Your task to perform on an android device: Open battery settings Image 0: 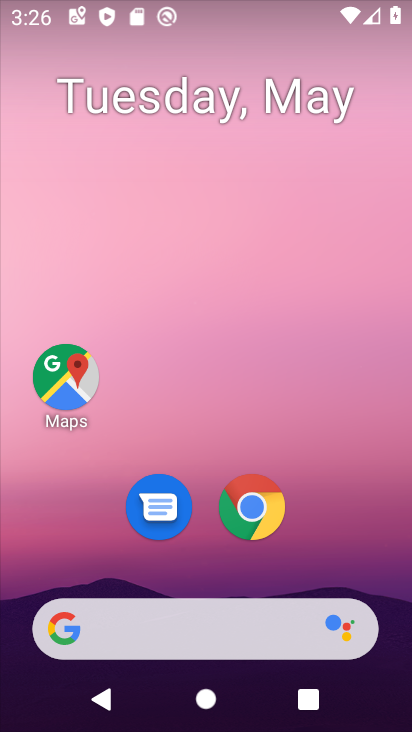
Step 0: drag from (200, 567) to (223, 0)
Your task to perform on an android device: Open battery settings Image 1: 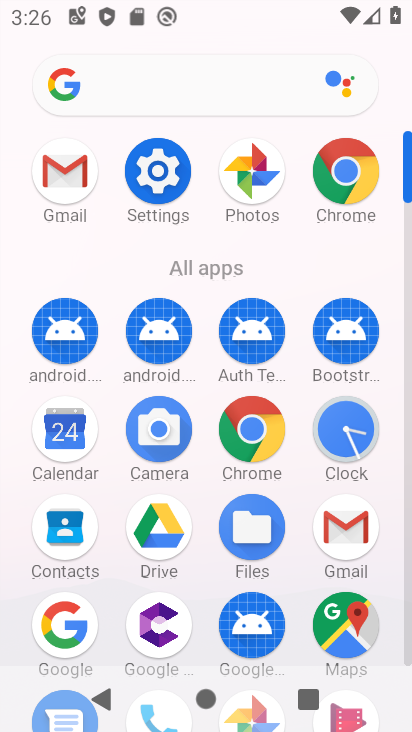
Step 1: click (149, 162)
Your task to perform on an android device: Open battery settings Image 2: 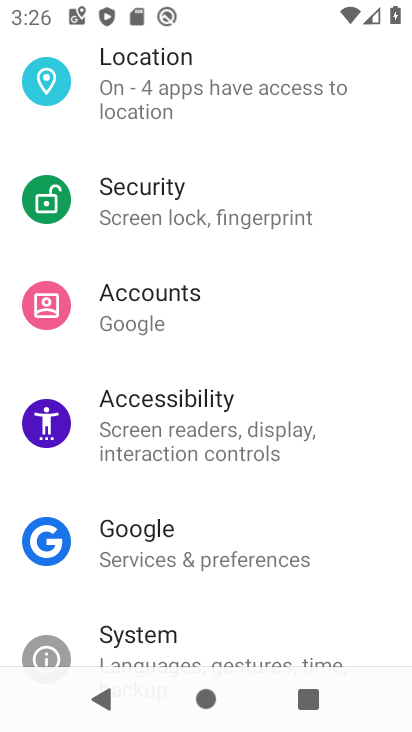
Step 2: drag from (247, 178) to (292, 640)
Your task to perform on an android device: Open battery settings Image 3: 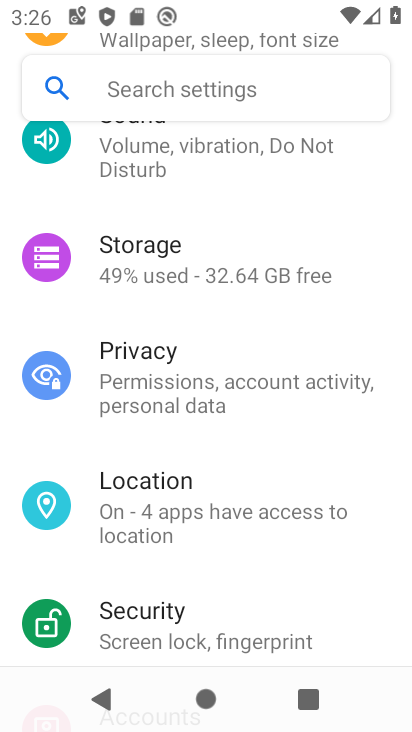
Step 3: drag from (167, 292) to (199, 713)
Your task to perform on an android device: Open battery settings Image 4: 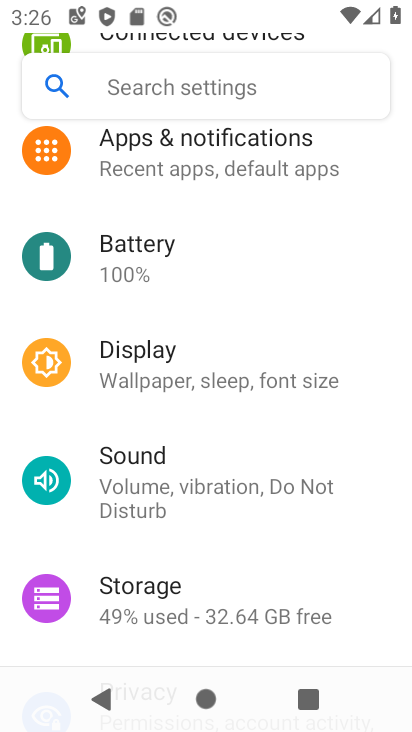
Step 4: click (197, 271)
Your task to perform on an android device: Open battery settings Image 5: 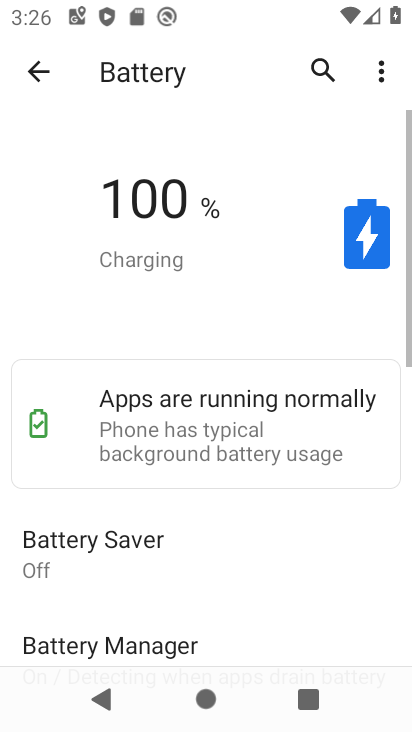
Step 5: task complete